Your task to perform on an android device: check battery use Image 0: 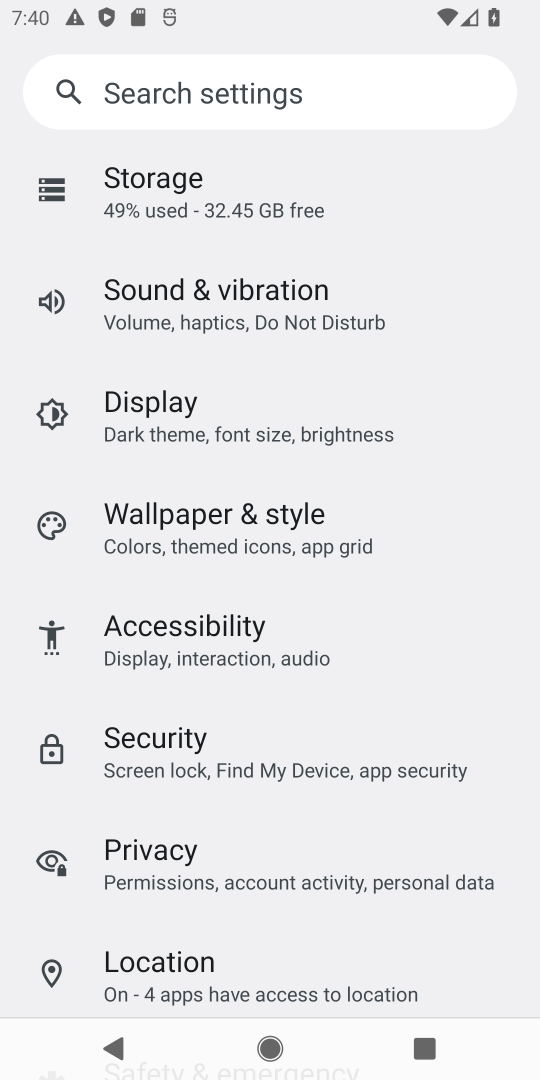
Step 0: drag from (395, 309) to (422, 866)
Your task to perform on an android device: check battery use Image 1: 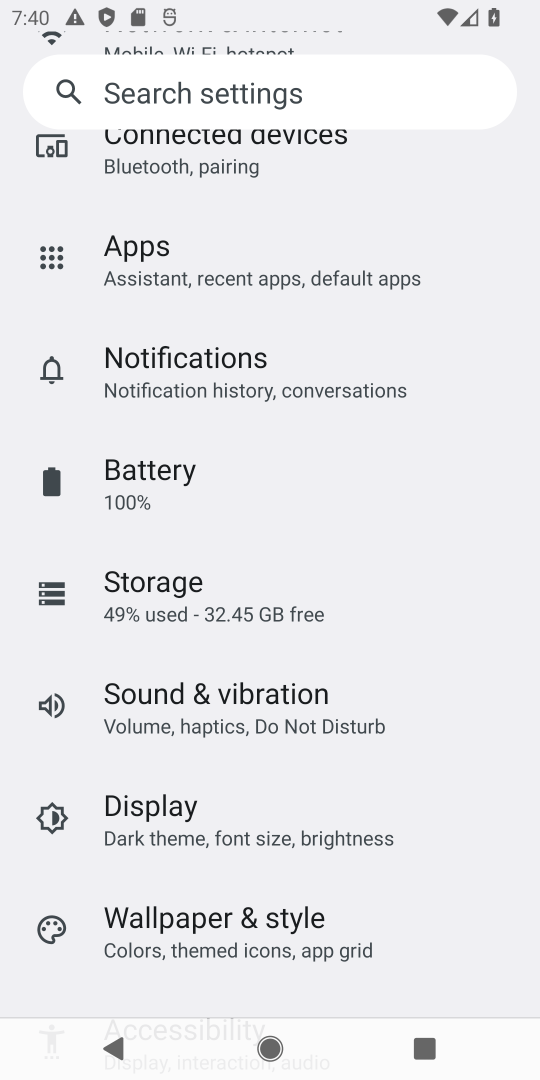
Step 1: click (137, 481)
Your task to perform on an android device: check battery use Image 2: 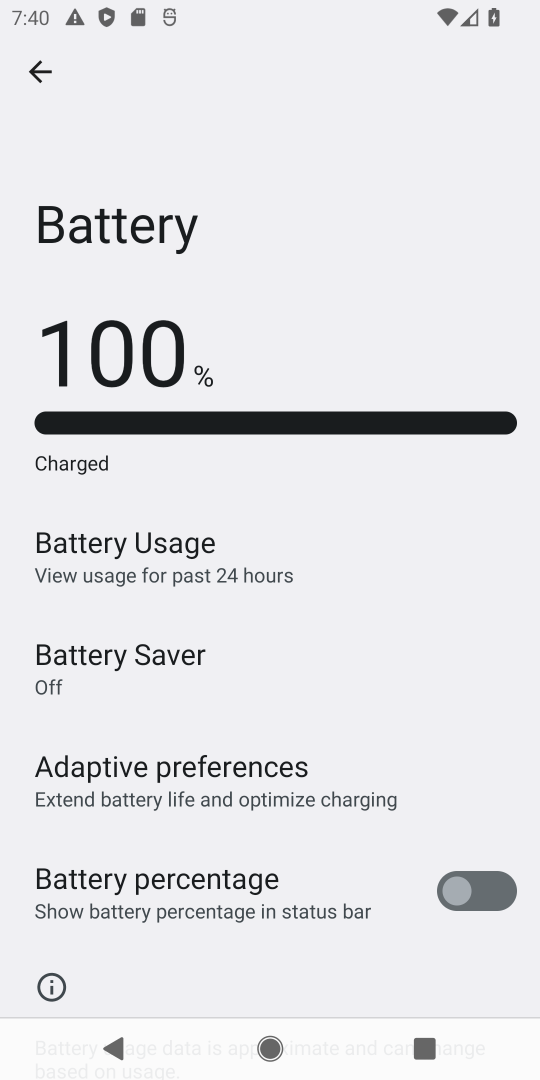
Step 2: drag from (330, 854) to (350, 333)
Your task to perform on an android device: check battery use Image 3: 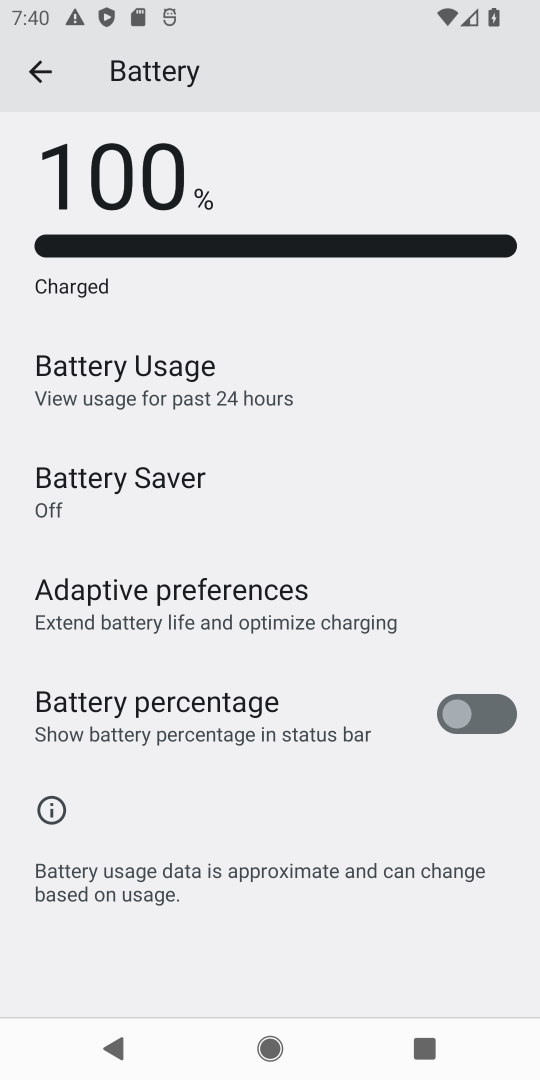
Step 3: click (109, 387)
Your task to perform on an android device: check battery use Image 4: 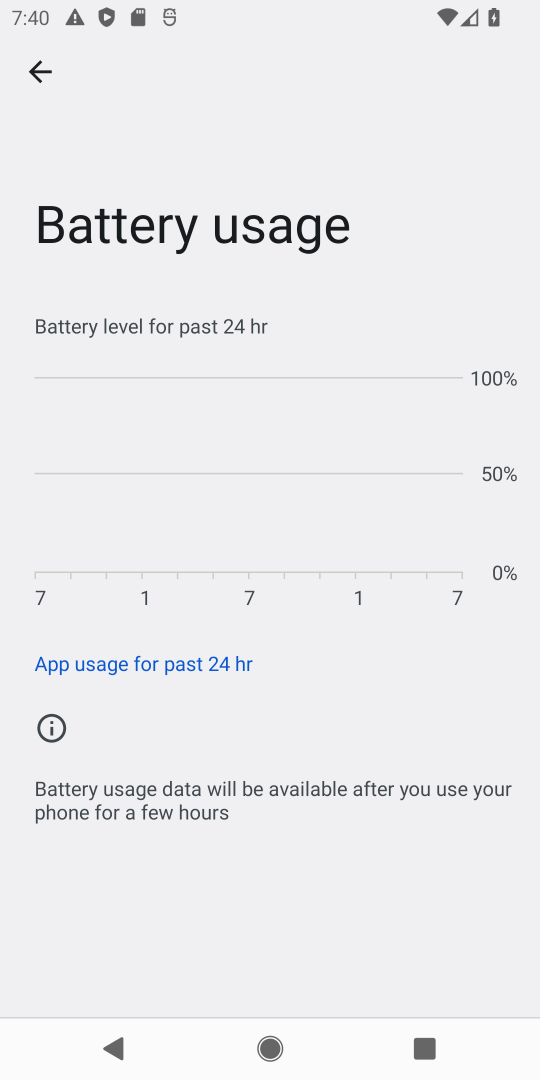
Step 4: task complete